Your task to perform on an android device: Open the calendar app, open the side menu, and click the "Day" option Image 0: 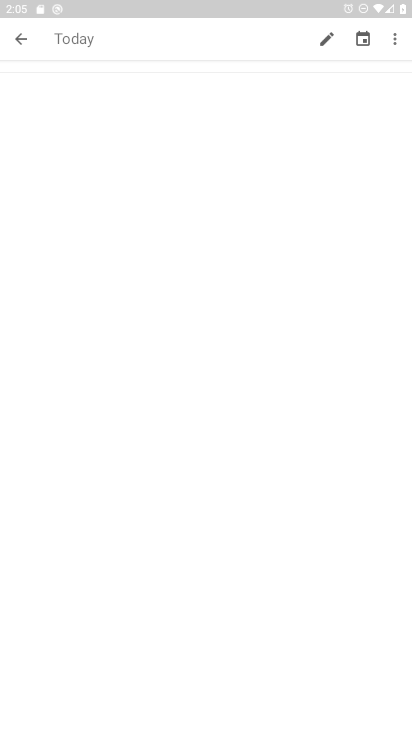
Step 0: drag from (187, 642) to (246, 350)
Your task to perform on an android device: Open the calendar app, open the side menu, and click the "Day" option Image 1: 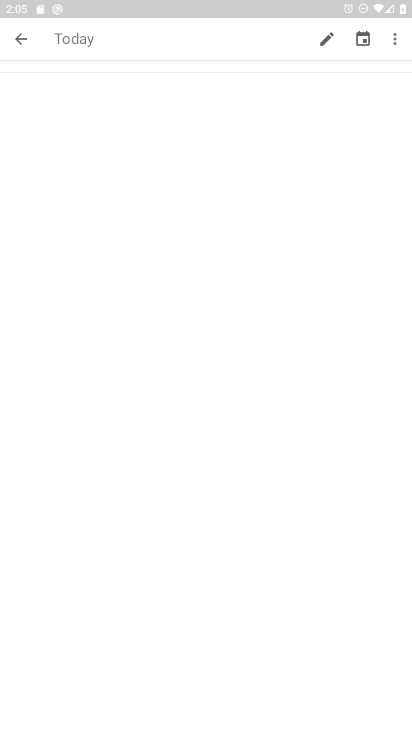
Step 1: press home button
Your task to perform on an android device: Open the calendar app, open the side menu, and click the "Day" option Image 2: 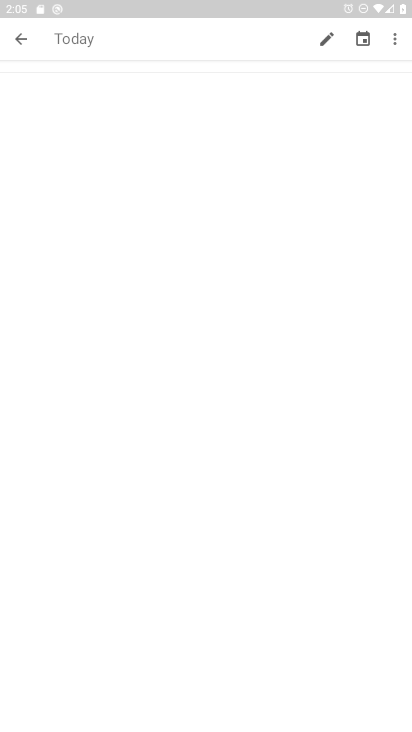
Step 2: press home button
Your task to perform on an android device: Open the calendar app, open the side menu, and click the "Day" option Image 3: 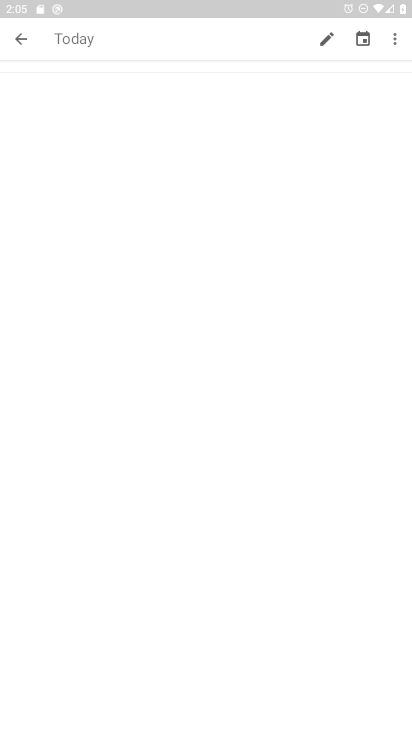
Step 3: click (245, 365)
Your task to perform on an android device: Open the calendar app, open the side menu, and click the "Day" option Image 4: 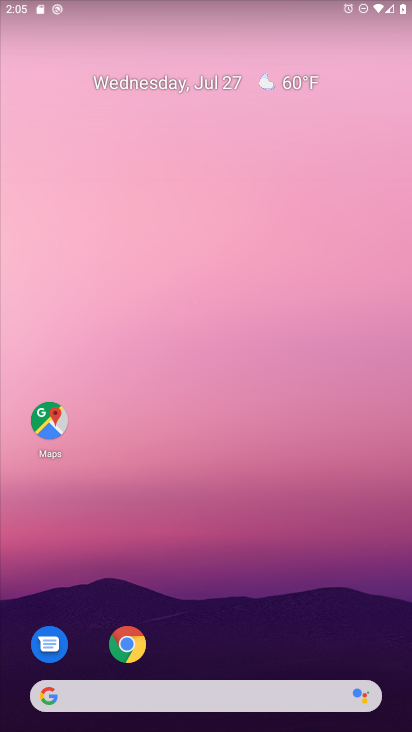
Step 4: drag from (191, 674) to (258, 28)
Your task to perform on an android device: Open the calendar app, open the side menu, and click the "Day" option Image 5: 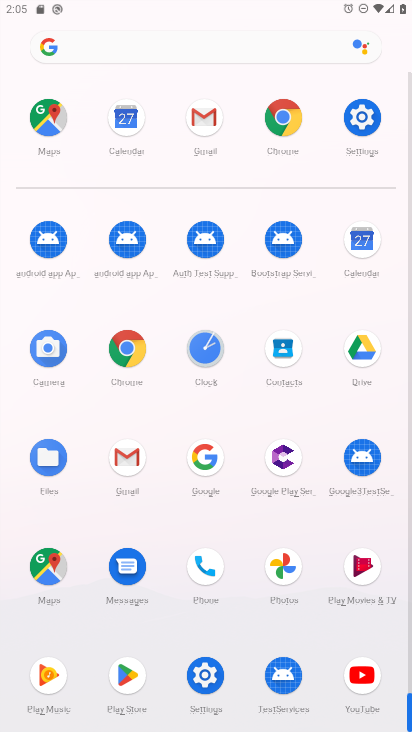
Step 5: click (367, 238)
Your task to perform on an android device: Open the calendar app, open the side menu, and click the "Day" option Image 6: 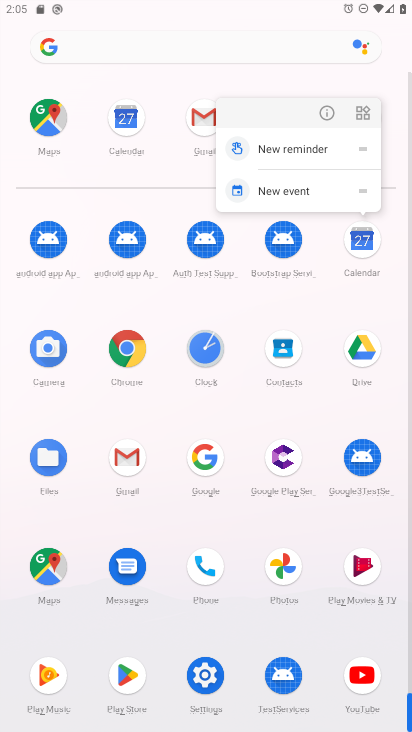
Step 6: click (328, 108)
Your task to perform on an android device: Open the calendar app, open the side menu, and click the "Day" option Image 7: 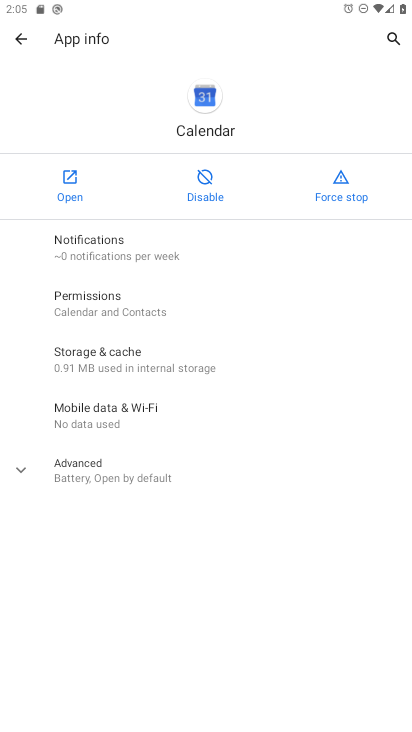
Step 7: click (75, 189)
Your task to perform on an android device: Open the calendar app, open the side menu, and click the "Day" option Image 8: 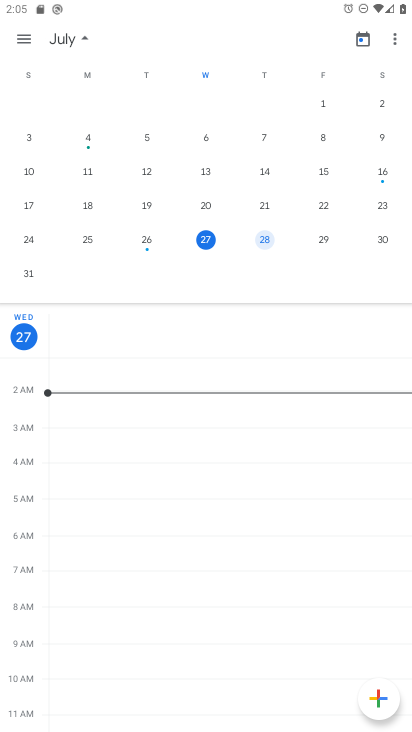
Step 8: click (31, 39)
Your task to perform on an android device: Open the calendar app, open the side menu, and click the "Day" option Image 9: 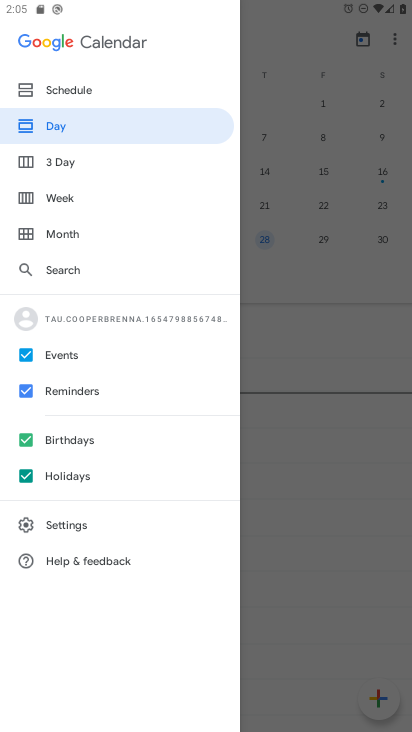
Step 9: click (42, 130)
Your task to perform on an android device: Open the calendar app, open the side menu, and click the "Day" option Image 10: 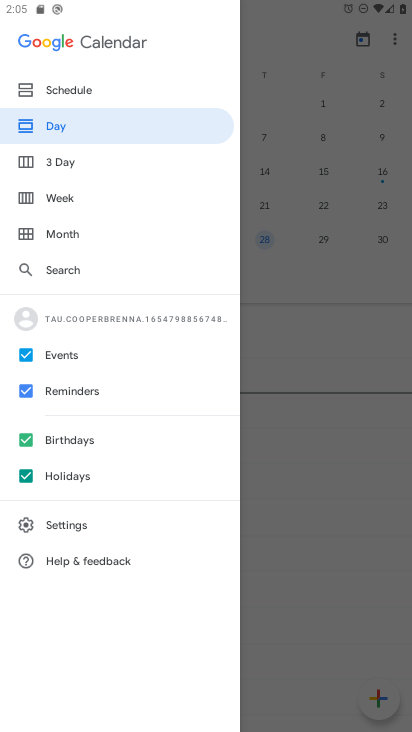
Step 10: click (72, 128)
Your task to perform on an android device: Open the calendar app, open the side menu, and click the "Day" option Image 11: 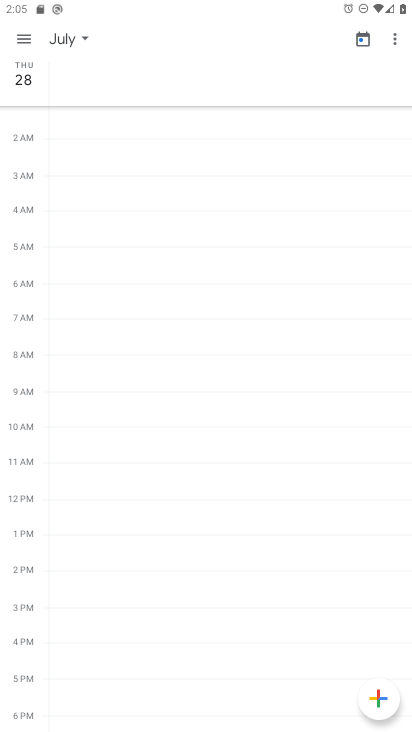
Step 11: task complete